Your task to perform on an android device: What's the weather going to be this weekend? Image 0: 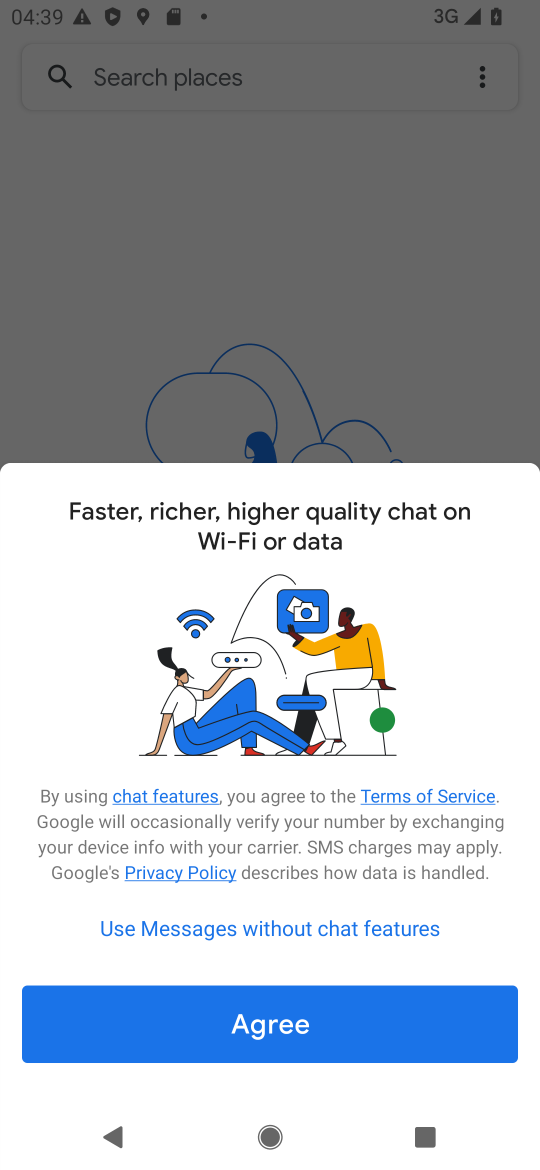
Step 0: press home button
Your task to perform on an android device: What's the weather going to be this weekend? Image 1: 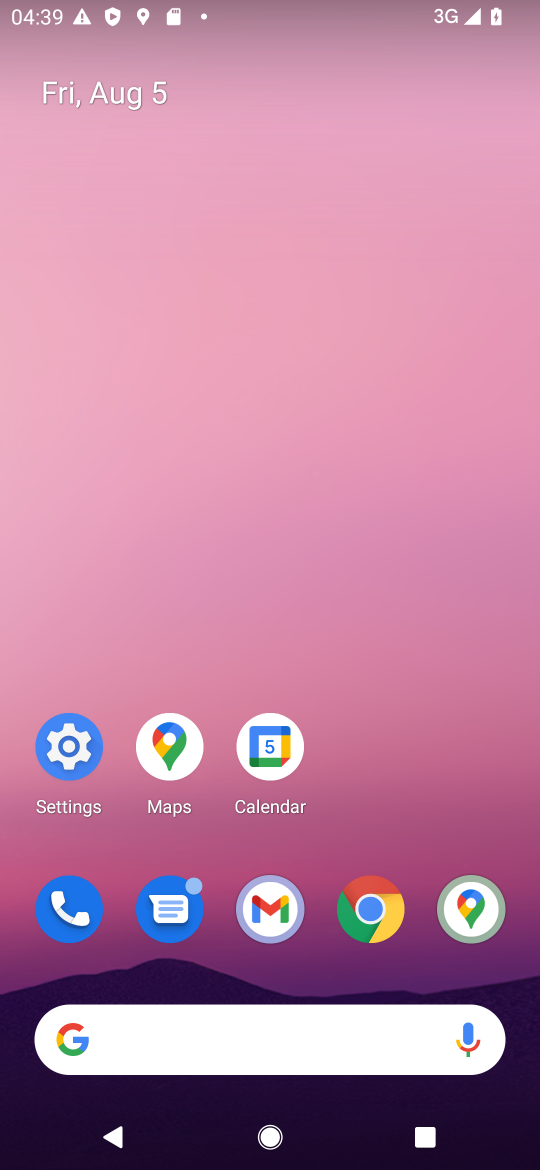
Step 1: click (248, 1036)
Your task to perform on an android device: What's the weather going to be this weekend? Image 2: 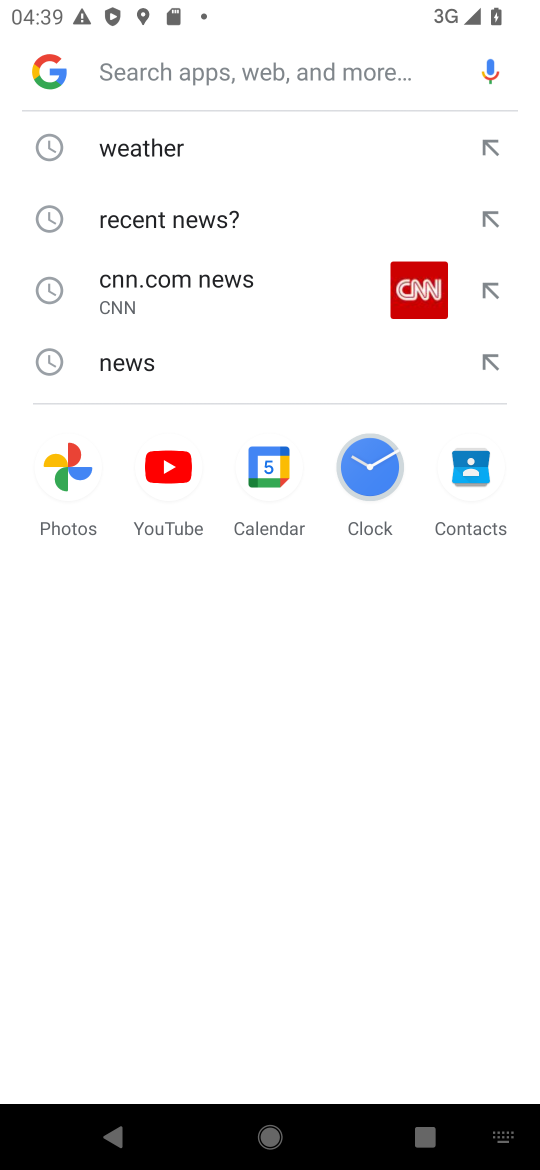
Step 2: click (156, 143)
Your task to perform on an android device: What's the weather going to be this weekend? Image 3: 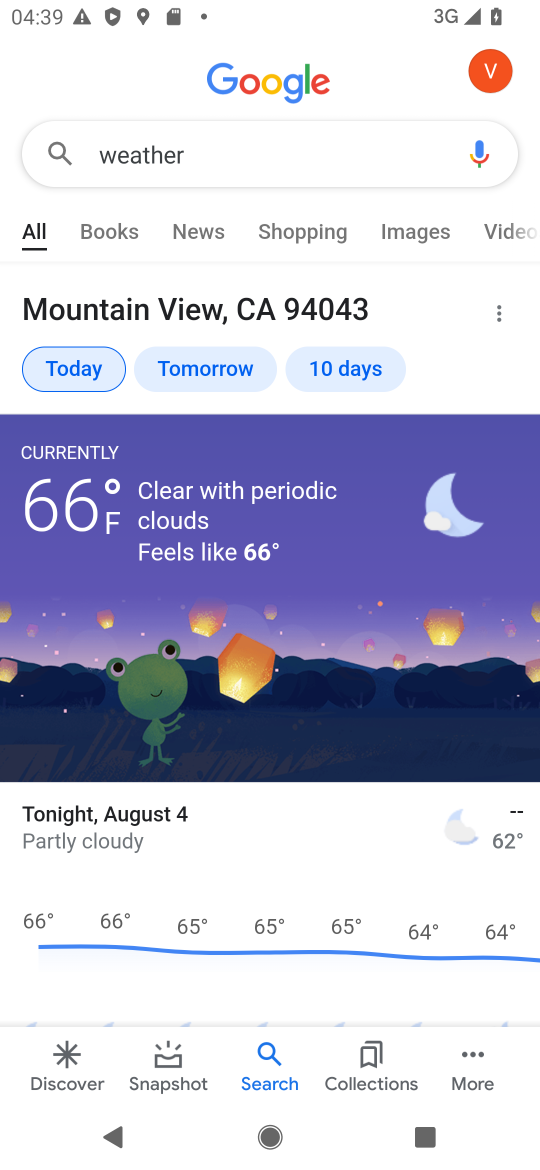
Step 3: click (338, 364)
Your task to perform on an android device: What's the weather going to be this weekend? Image 4: 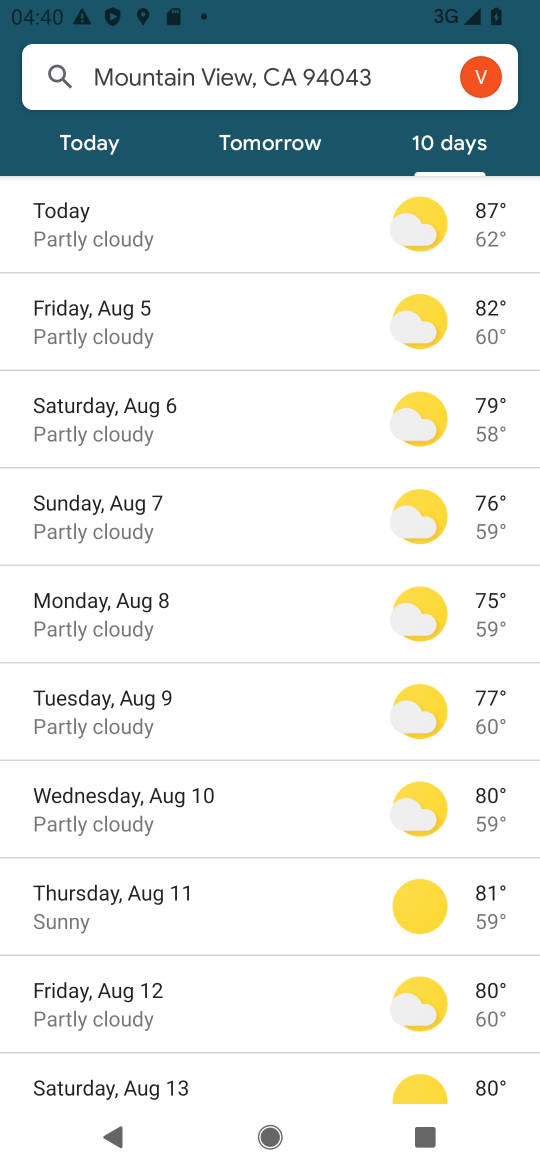
Step 4: task complete